Your task to perform on an android device: show emergency info Image 0: 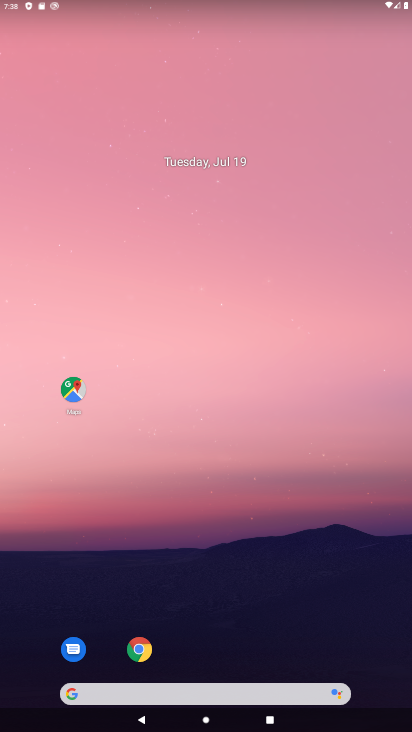
Step 0: drag from (294, 203) to (179, 179)
Your task to perform on an android device: show emergency info Image 1: 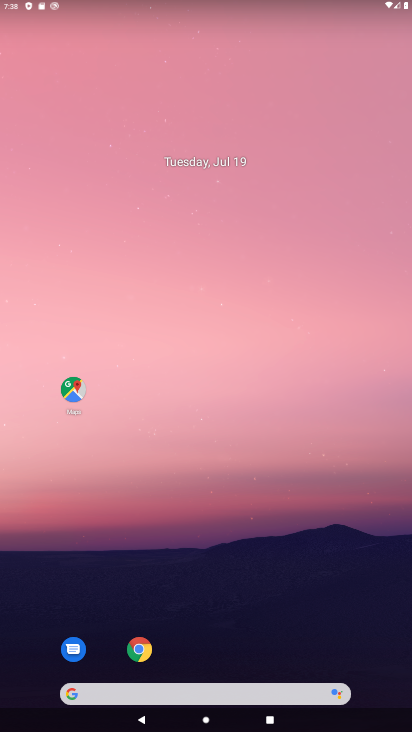
Step 1: drag from (169, 543) to (180, 180)
Your task to perform on an android device: show emergency info Image 2: 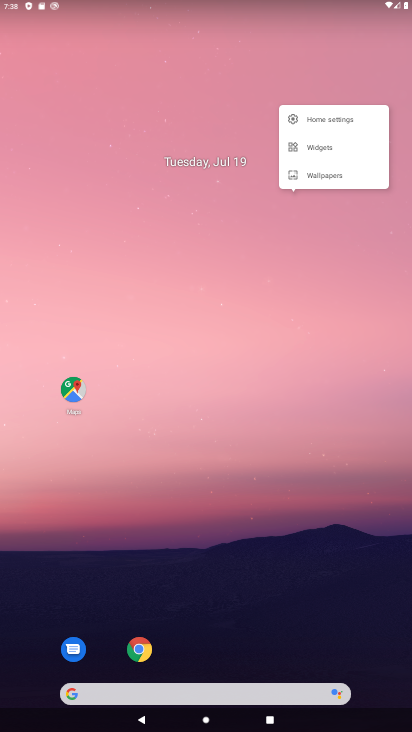
Step 2: drag from (234, 538) to (220, 123)
Your task to perform on an android device: show emergency info Image 3: 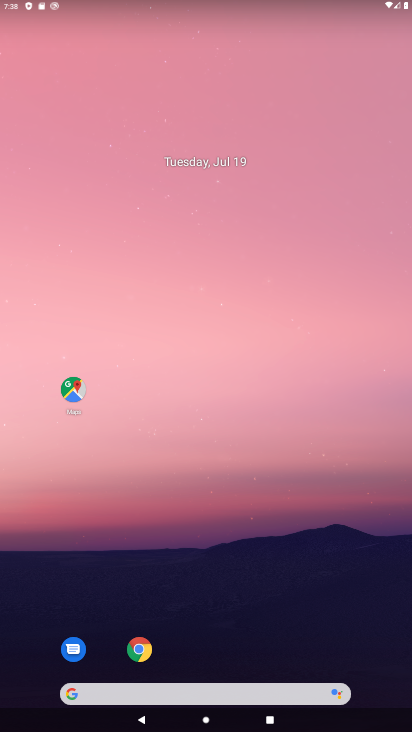
Step 3: drag from (156, 633) to (190, 321)
Your task to perform on an android device: show emergency info Image 4: 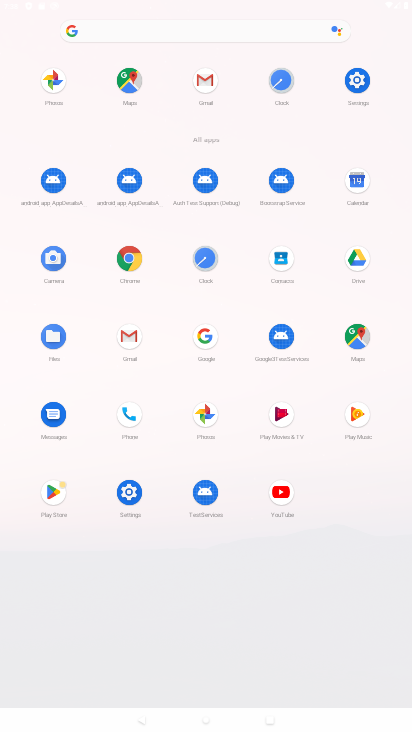
Step 4: drag from (215, 369) to (220, 260)
Your task to perform on an android device: show emergency info Image 5: 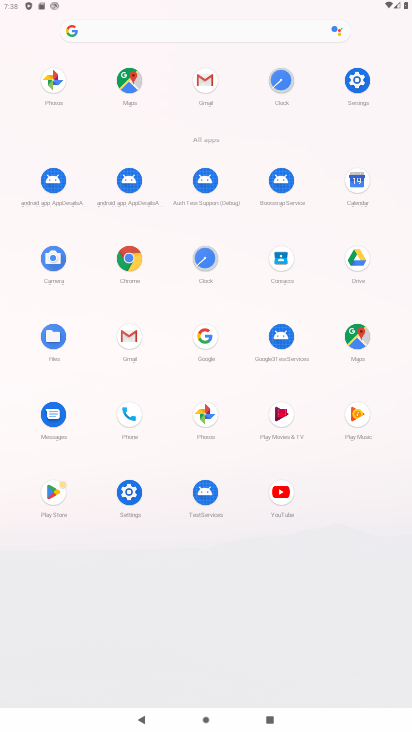
Step 5: click (357, 79)
Your task to perform on an android device: show emergency info Image 6: 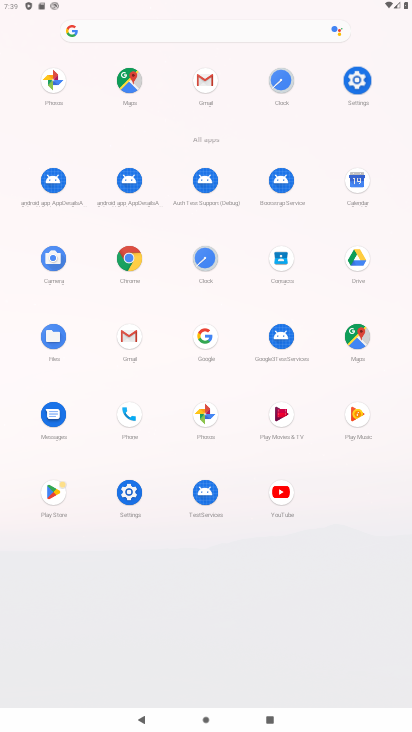
Step 6: click (357, 79)
Your task to perform on an android device: show emergency info Image 7: 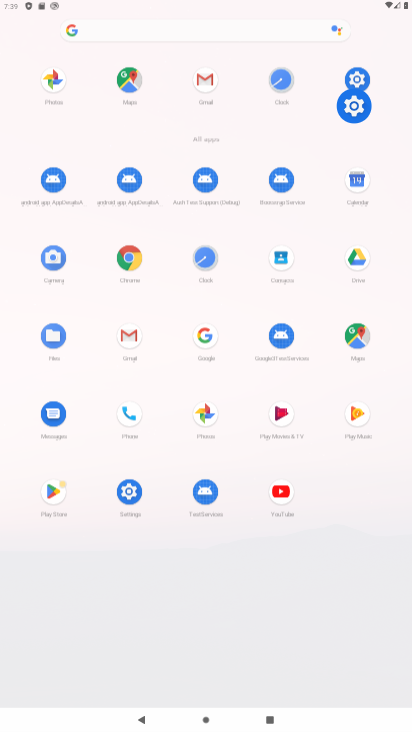
Step 7: click (358, 79)
Your task to perform on an android device: show emergency info Image 8: 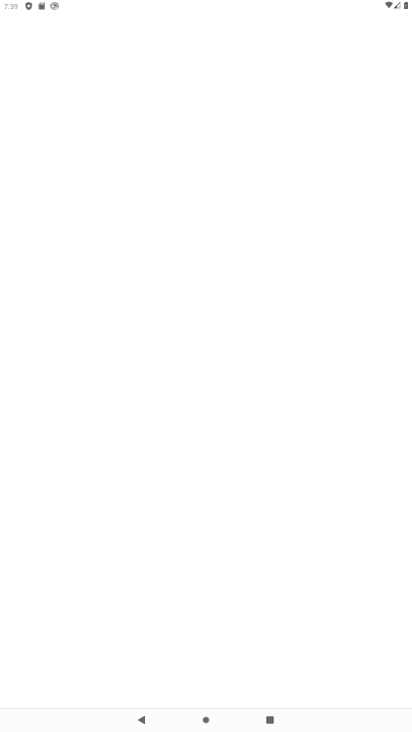
Step 8: click (358, 79)
Your task to perform on an android device: show emergency info Image 9: 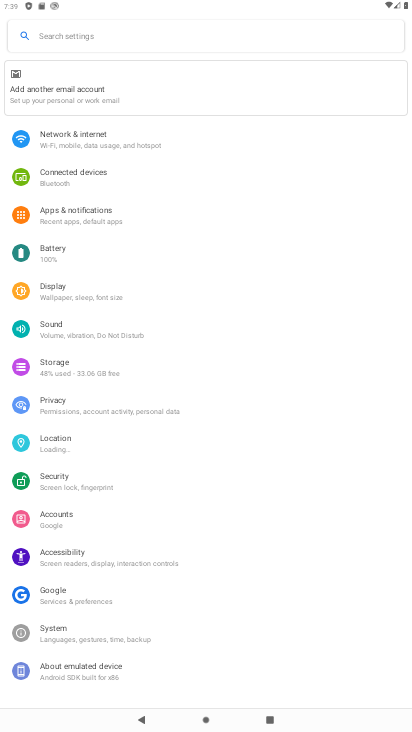
Step 9: click (49, 675)
Your task to perform on an android device: show emergency info Image 10: 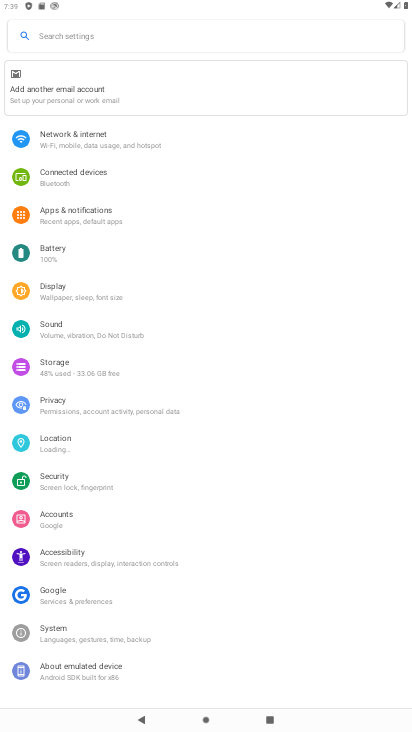
Step 10: click (48, 674)
Your task to perform on an android device: show emergency info Image 11: 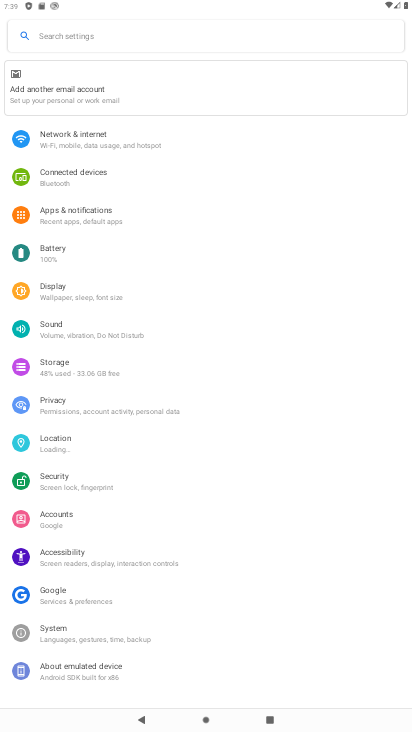
Step 11: click (48, 674)
Your task to perform on an android device: show emergency info Image 12: 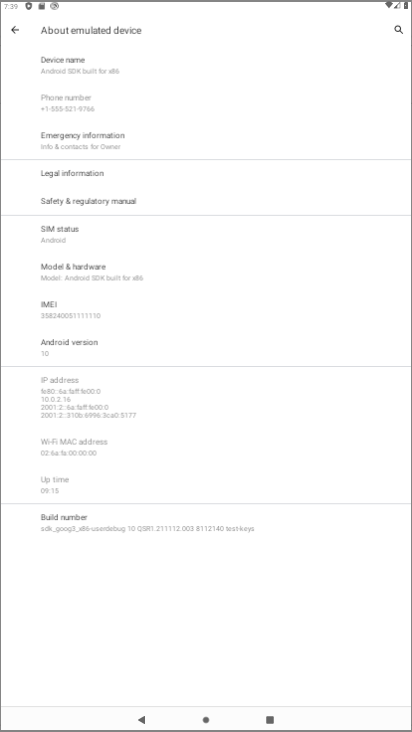
Step 12: click (48, 674)
Your task to perform on an android device: show emergency info Image 13: 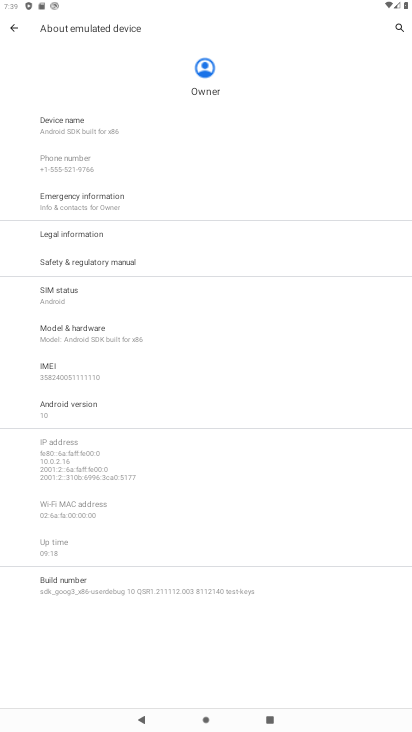
Step 13: click (80, 595)
Your task to perform on an android device: show emergency info Image 14: 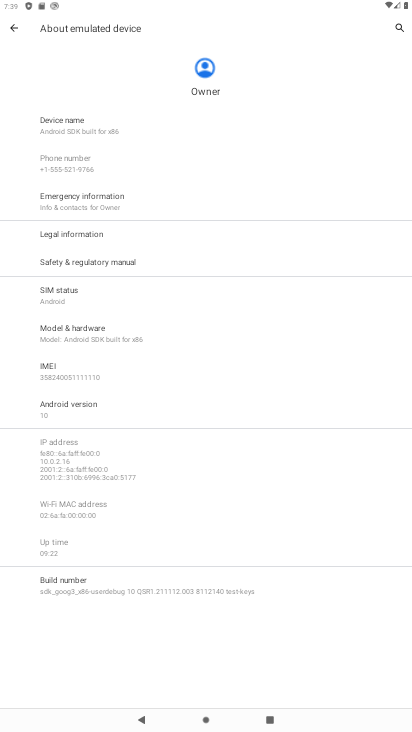
Step 14: click (90, 192)
Your task to perform on an android device: show emergency info Image 15: 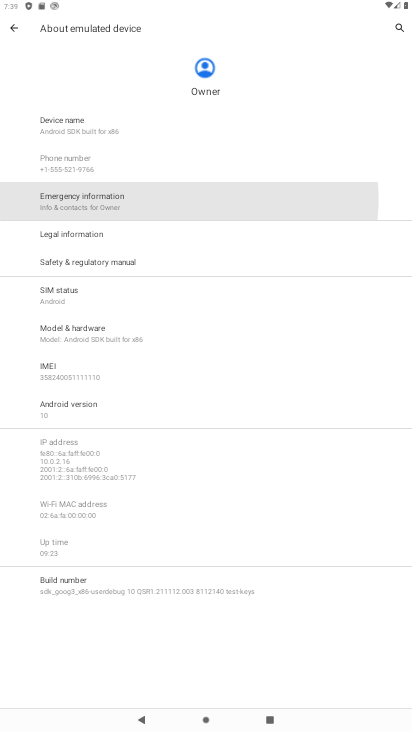
Step 15: click (90, 192)
Your task to perform on an android device: show emergency info Image 16: 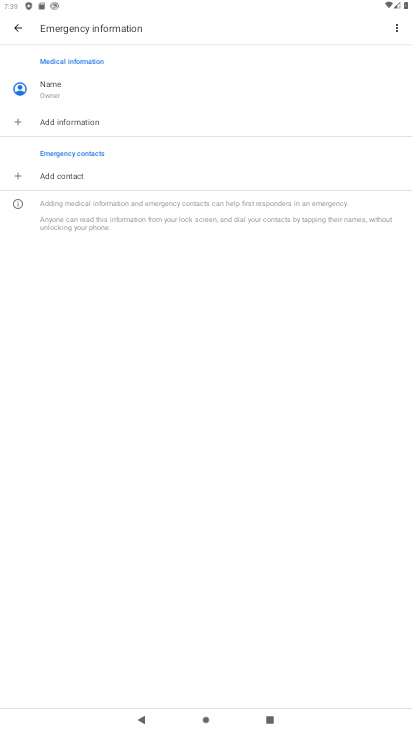
Step 16: task complete